Your task to perform on an android device: Open the phone app and click the voicemail tab. Image 0: 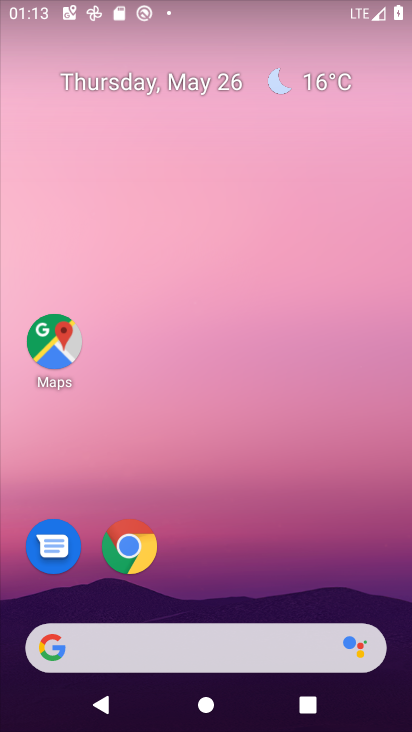
Step 0: drag from (209, 533) to (249, 217)
Your task to perform on an android device: Open the phone app and click the voicemail tab. Image 1: 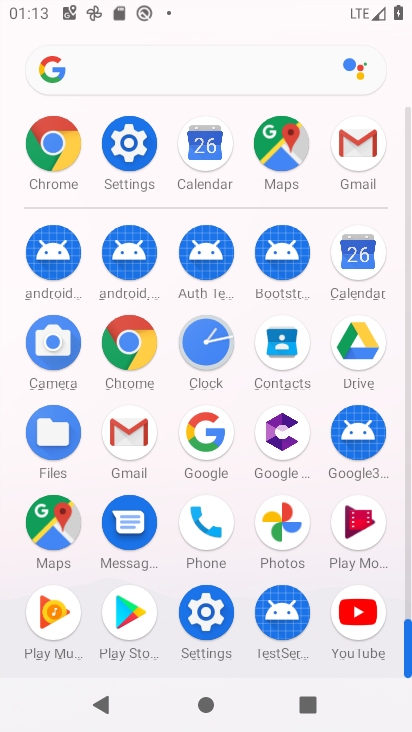
Step 1: click (200, 521)
Your task to perform on an android device: Open the phone app and click the voicemail tab. Image 2: 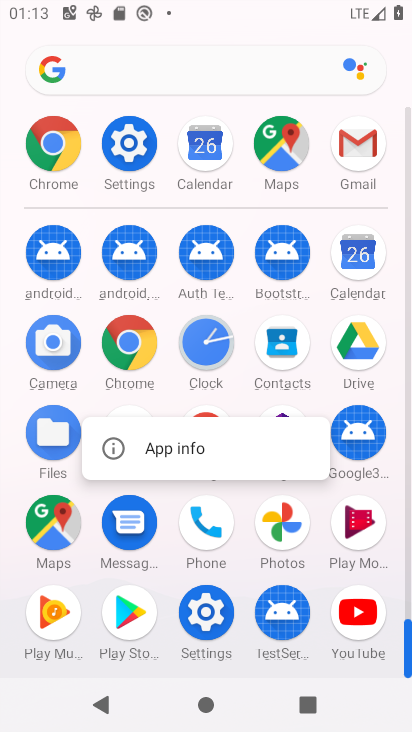
Step 2: click (210, 524)
Your task to perform on an android device: Open the phone app and click the voicemail tab. Image 3: 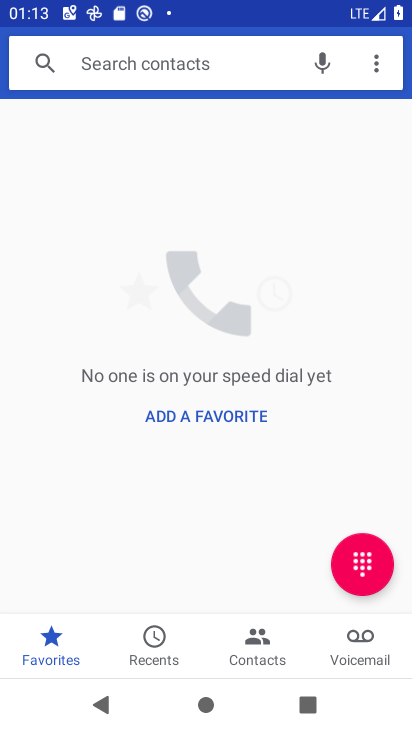
Step 3: click (372, 646)
Your task to perform on an android device: Open the phone app and click the voicemail tab. Image 4: 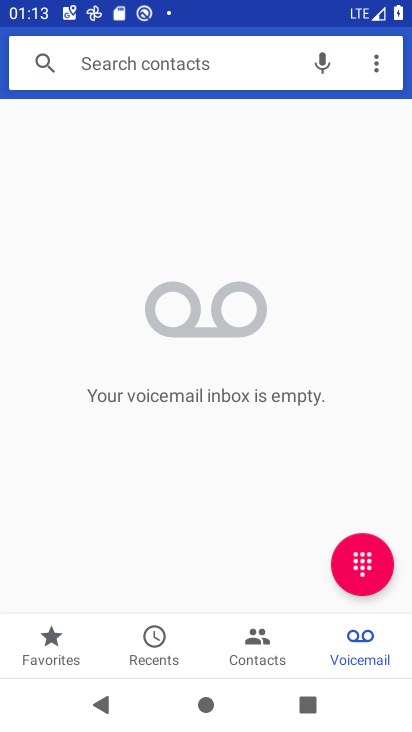
Step 4: task complete